Your task to perform on an android device: add a label to a message in the gmail app Image 0: 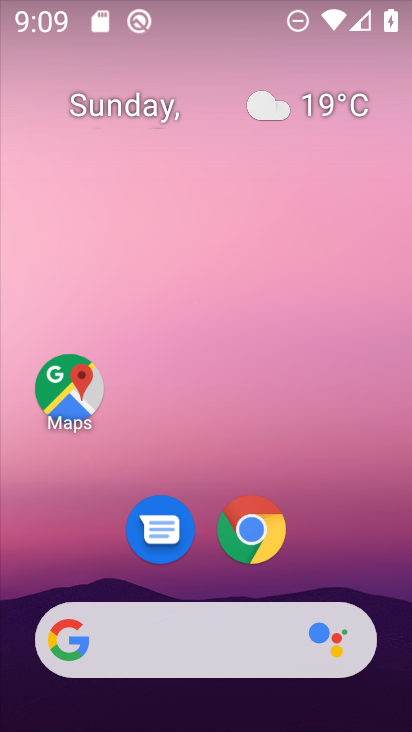
Step 0: drag from (198, 543) to (229, 42)
Your task to perform on an android device: add a label to a message in the gmail app Image 1: 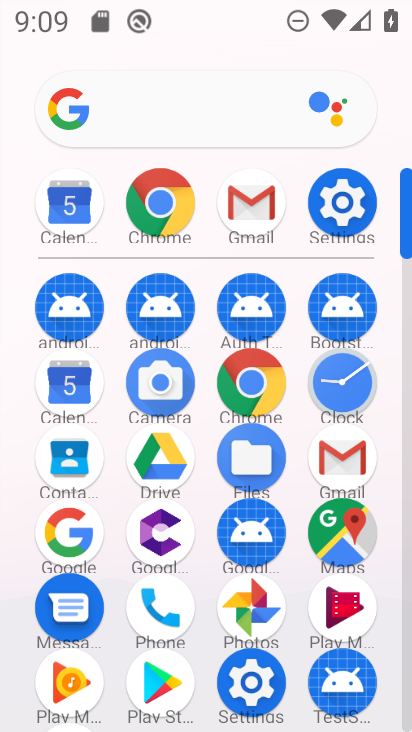
Step 1: click (244, 196)
Your task to perform on an android device: add a label to a message in the gmail app Image 2: 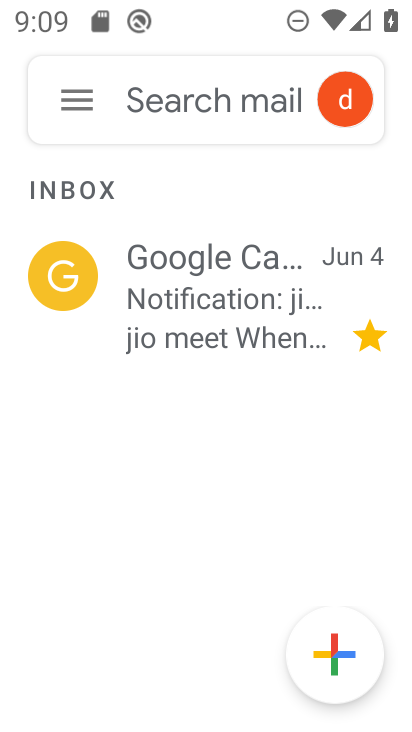
Step 2: click (66, 280)
Your task to perform on an android device: add a label to a message in the gmail app Image 3: 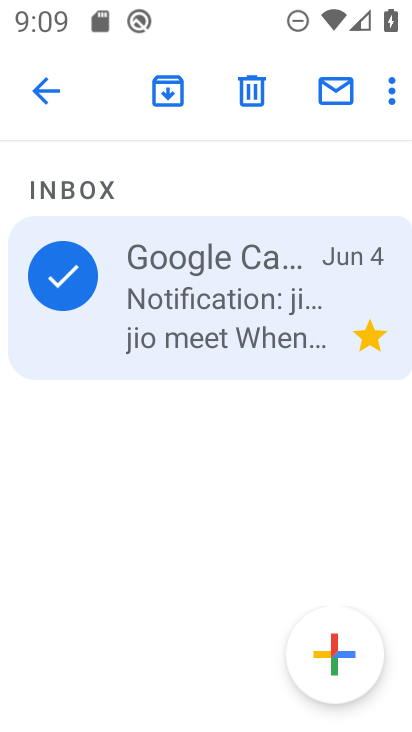
Step 3: click (392, 99)
Your task to perform on an android device: add a label to a message in the gmail app Image 4: 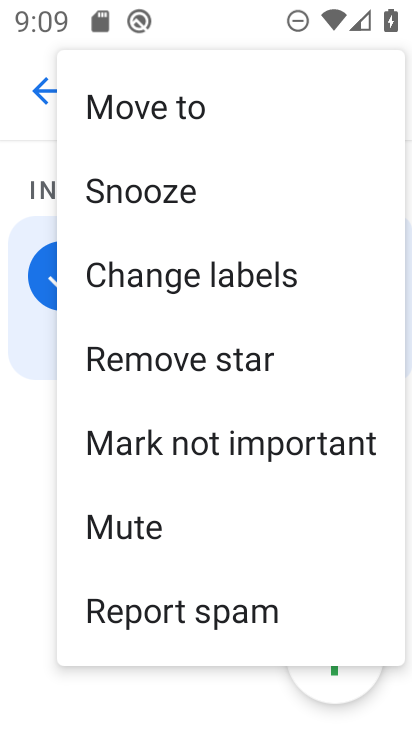
Step 4: click (209, 281)
Your task to perform on an android device: add a label to a message in the gmail app Image 5: 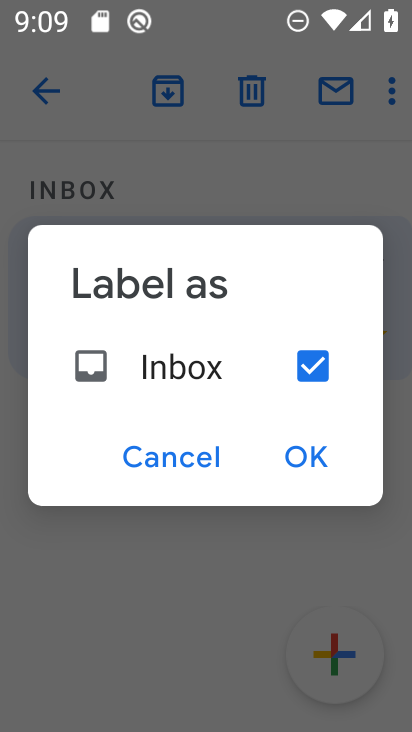
Step 5: click (313, 362)
Your task to perform on an android device: add a label to a message in the gmail app Image 6: 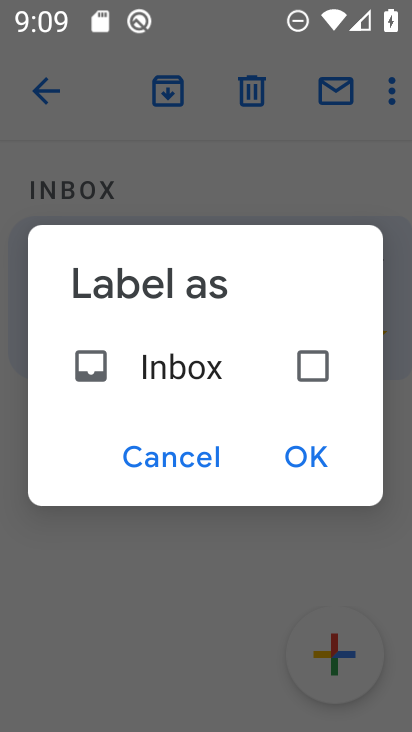
Step 6: click (314, 456)
Your task to perform on an android device: add a label to a message in the gmail app Image 7: 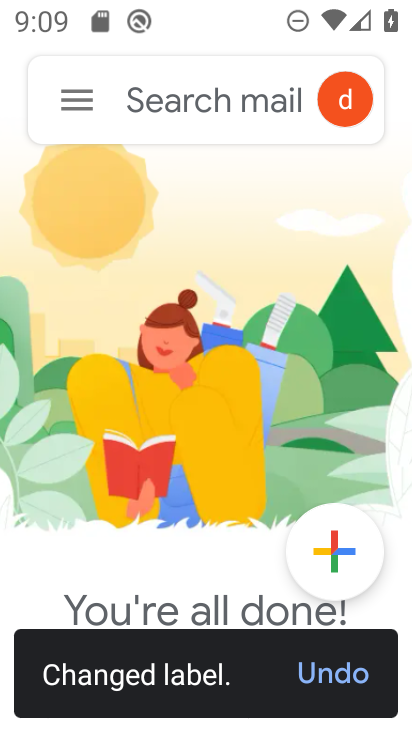
Step 7: task complete